Your task to perform on an android device: Go to calendar. Show me events next week Image 0: 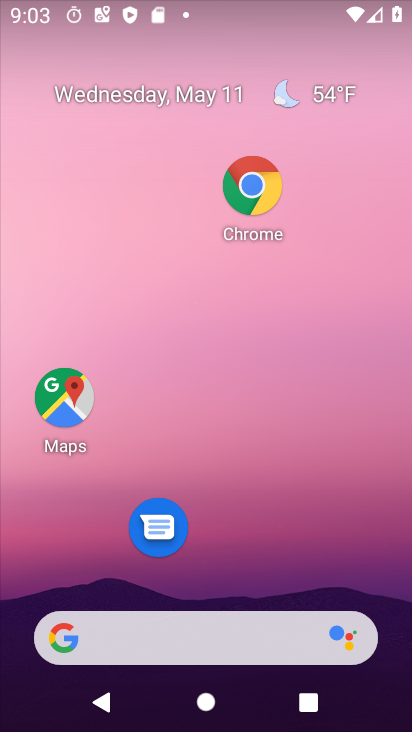
Step 0: drag from (229, 557) to (197, 22)
Your task to perform on an android device: Go to calendar. Show me events next week Image 1: 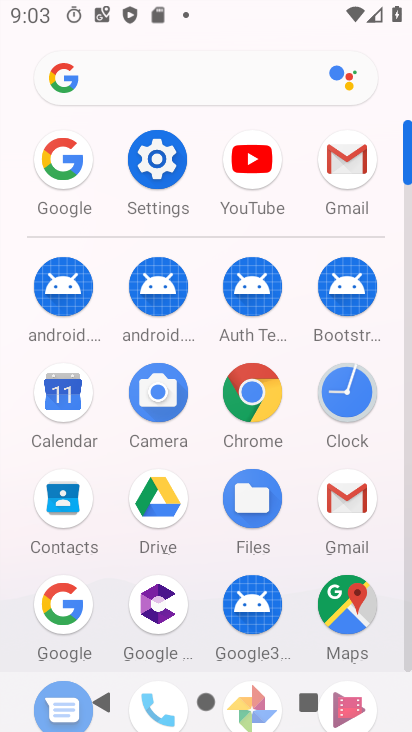
Step 1: click (68, 398)
Your task to perform on an android device: Go to calendar. Show me events next week Image 2: 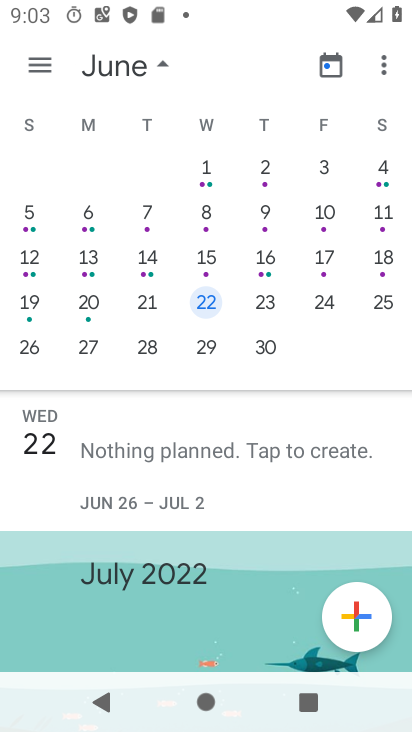
Step 2: drag from (106, 374) to (403, 331)
Your task to perform on an android device: Go to calendar. Show me events next week Image 3: 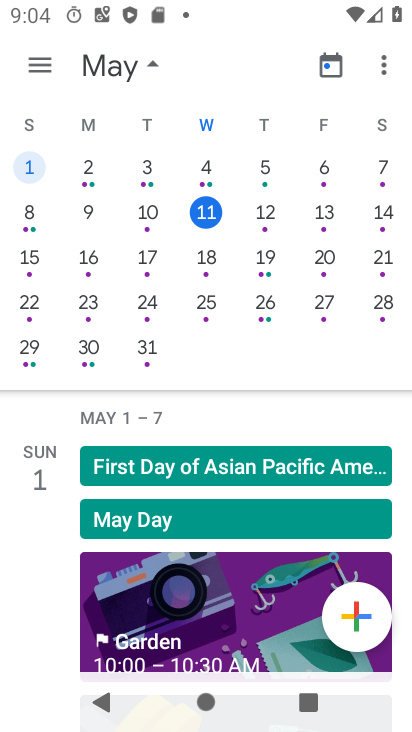
Step 3: click (204, 262)
Your task to perform on an android device: Go to calendar. Show me events next week Image 4: 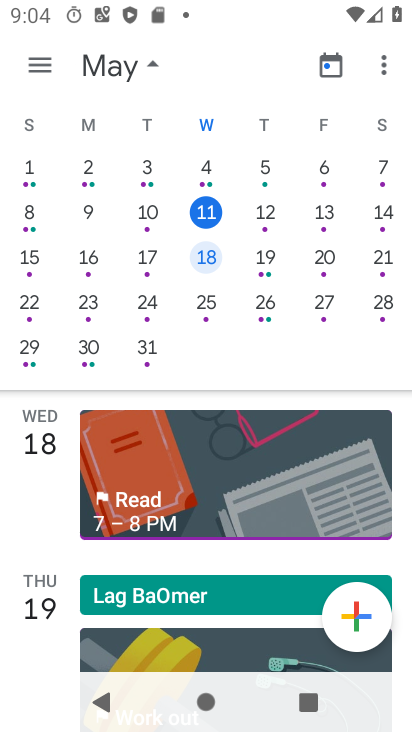
Step 4: task complete